Your task to perform on an android device: What's on my calendar today? Image 0: 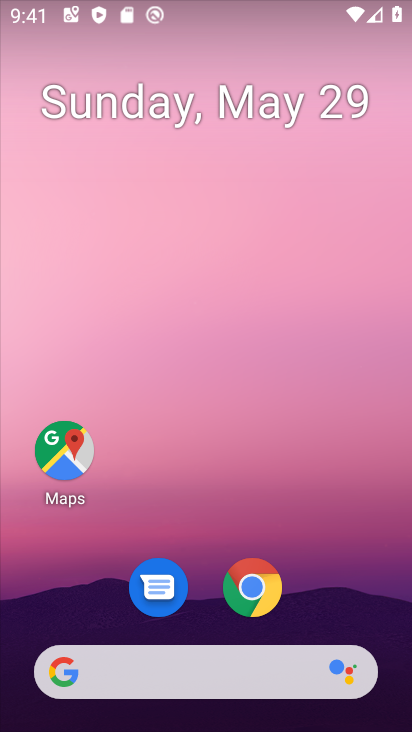
Step 0: click (180, 664)
Your task to perform on an android device: What's on my calendar today? Image 1: 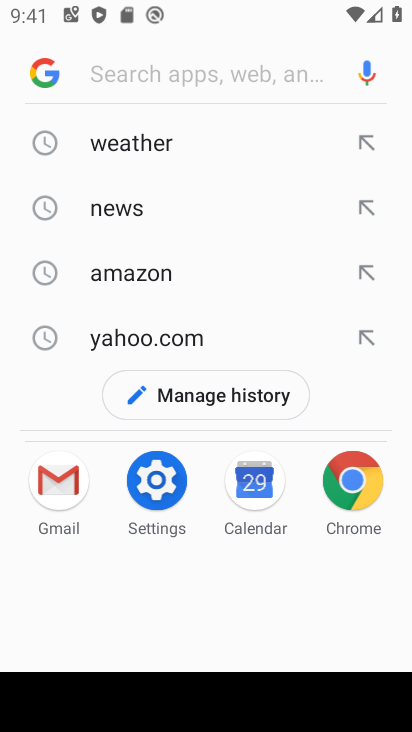
Step 1: press home button
Your task to perform on an android device: What's on my calendar today? Image 2: 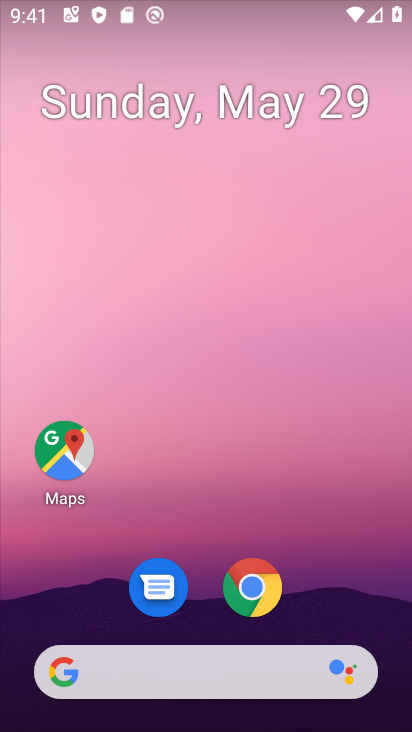
Step 2: drag from (178, 525) to (182, 73)
Your task to perform on an android device: What's on my calendar today? Image 3: 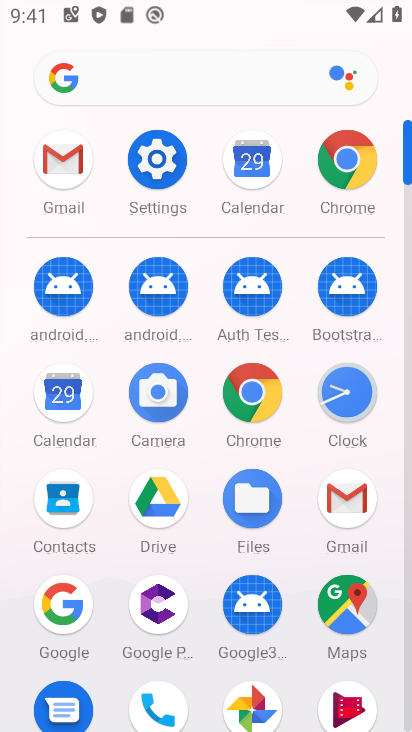
Step 3: click (251, 162)
Your task to perform on an android device: What's on my calendar today? Image 4: 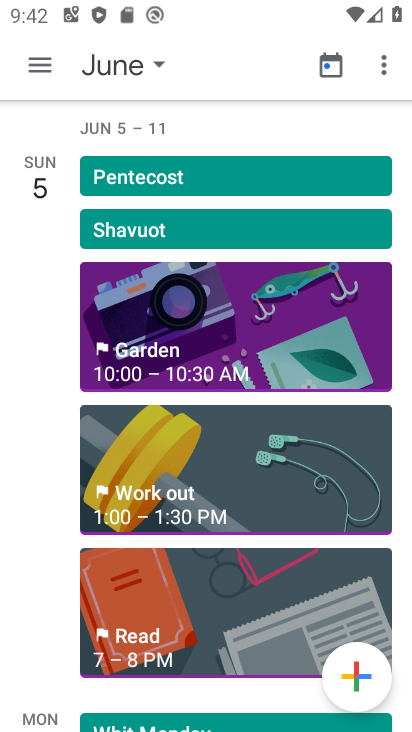
Step 4: click (147, 62)
Your task to perform on an android device: What's on my calendar today? Image 5: 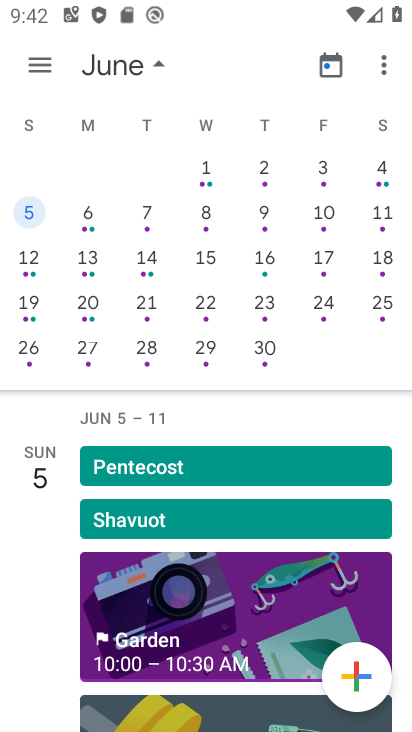
Step 5: drag from (32, 273) to (400, 230)
Your task to perform on an android device: What's on my calendar today? Image 6: 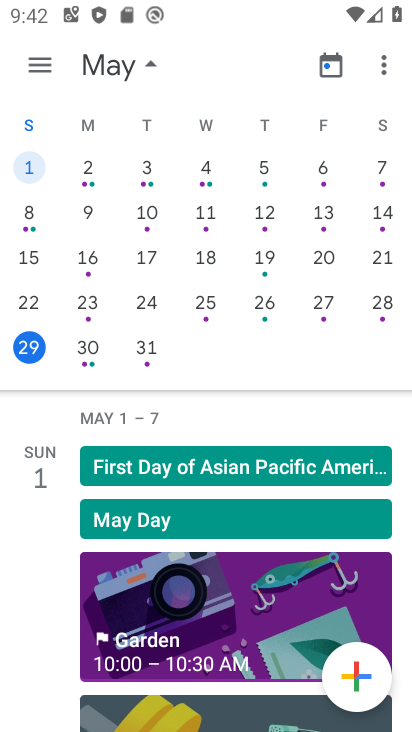
Step 6: click (77, 345)
Your task to perform on an android device: What's on my calendar today? Image 7: 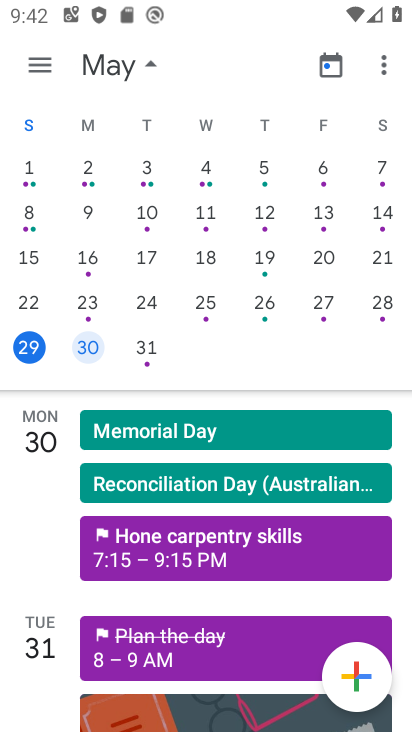
Step 7: click (38, 345)
Your task to perform on an android device: What's on my calendar today? Image 8: 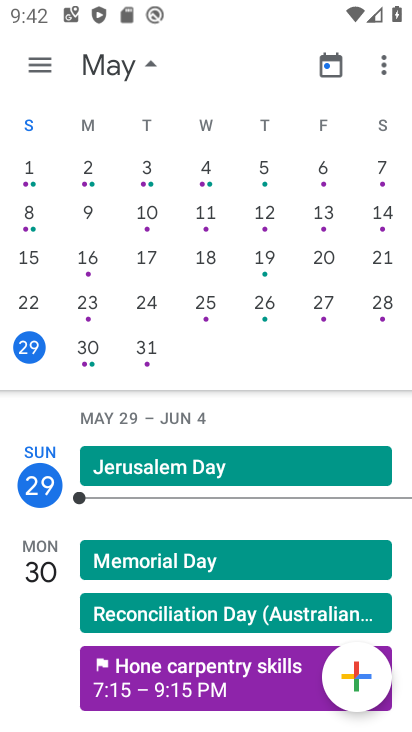
Step 8: click (86, 347)
Your task to perform on an android device: What's on my calendar today? Image 9: 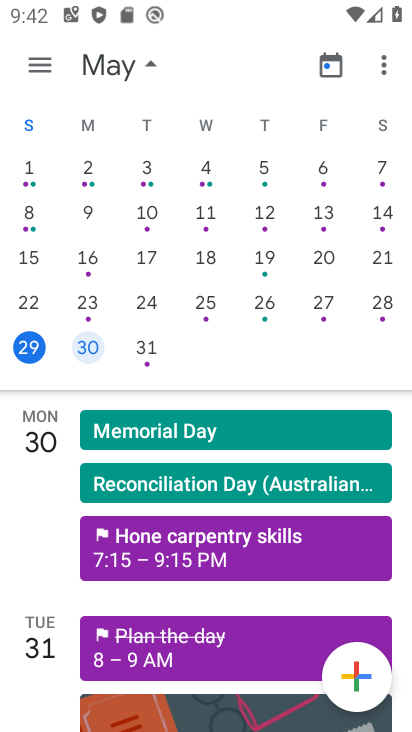
Step 9: click (151, 428)
Your task to perform on an android device: What's on my calendar today? Image 10: 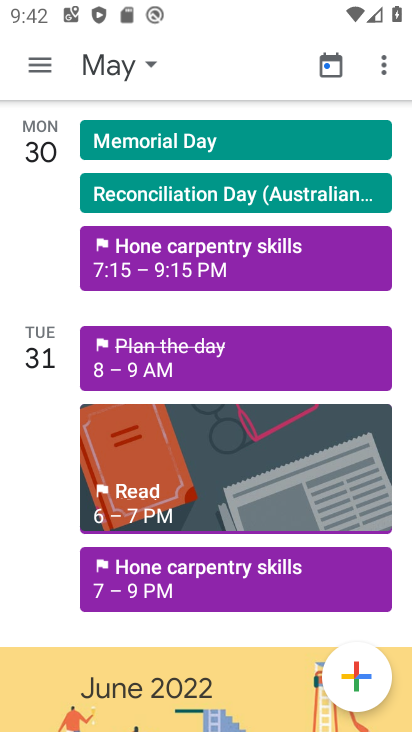
Step 10: task complete